Your task to perform on an android device: Open eBay Image 0: 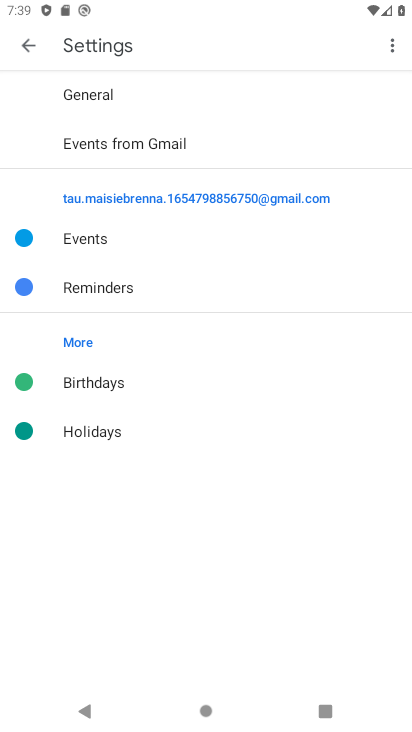
Step 0: press home button
Your task to perform on an android device: Open eBay Image 1: 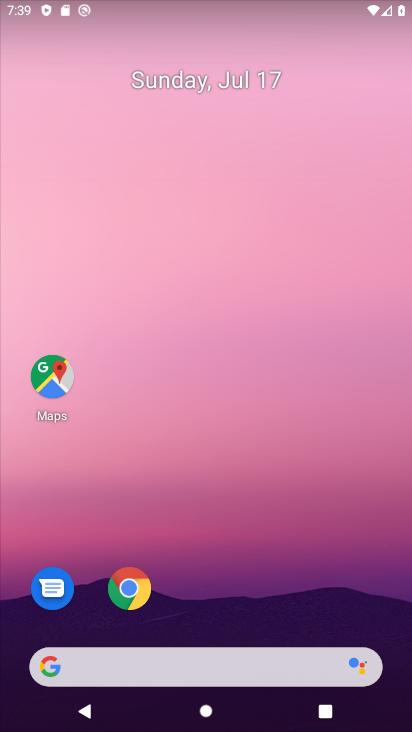
Step 1: drag from (266, 615) to (234, 158)
Your task to perform on an android device: Open eBay Image 2: 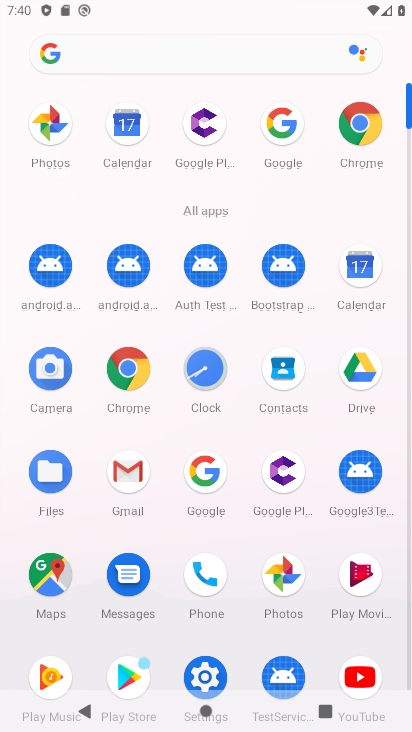
Step 2: click (130, 386)
Your task to perform on an android device: Open eBay Image 3: 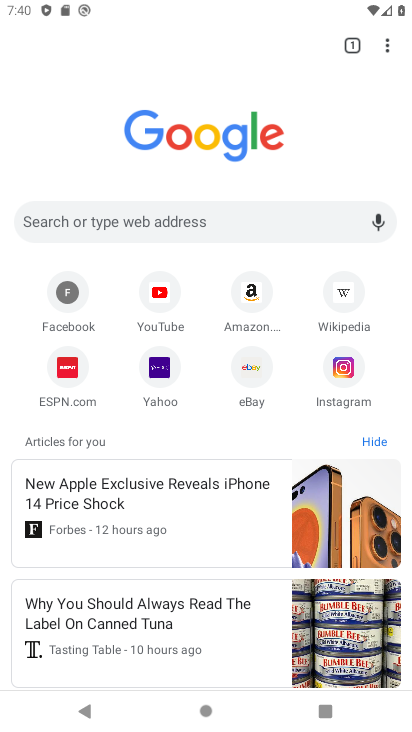
Step 3: click (254, 375)
Your task to perform on an android device: Open eBay Image 4: 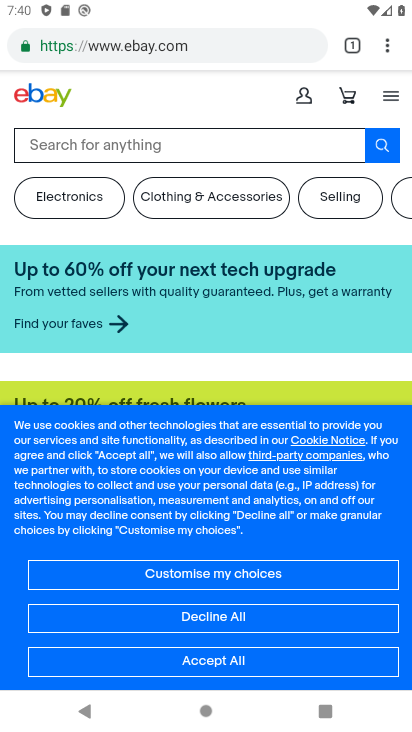
Step 4: task complete